Your task to perform on an android device: Go to Reddit.com Image 0: 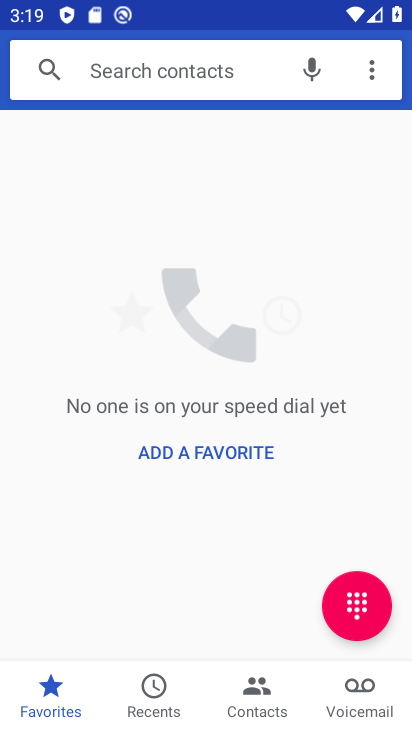
Step 0: press home button
Your task to perform on an android device: Go to Reddit.com Image 1: 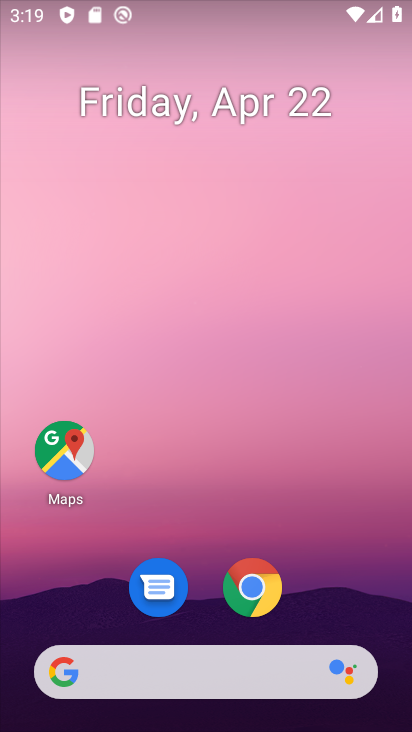
Step 1: click (251, 587)
Your task to perform on an android device: Go to Reddit.com Image 2: 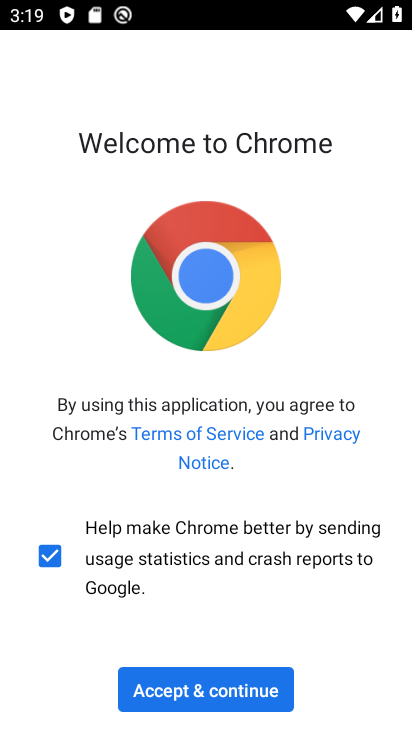
Step 2: click (196, 688)
Your task to perform on an android device: Go to Reddit.com Image 3: 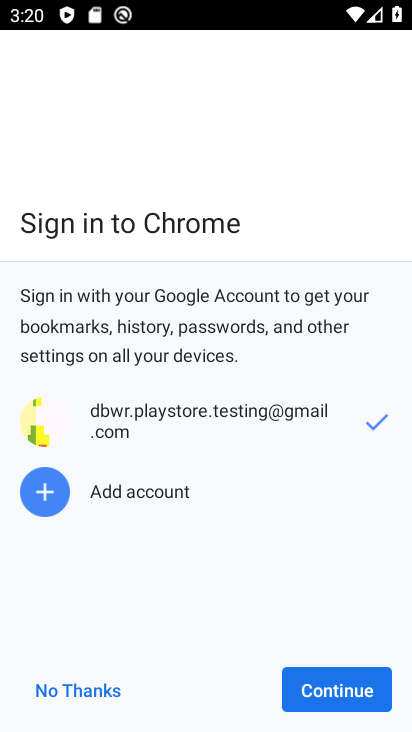
Step 3: click (337, 691)
Your task to perform on an android device: Go to Reddit.com Image 4: 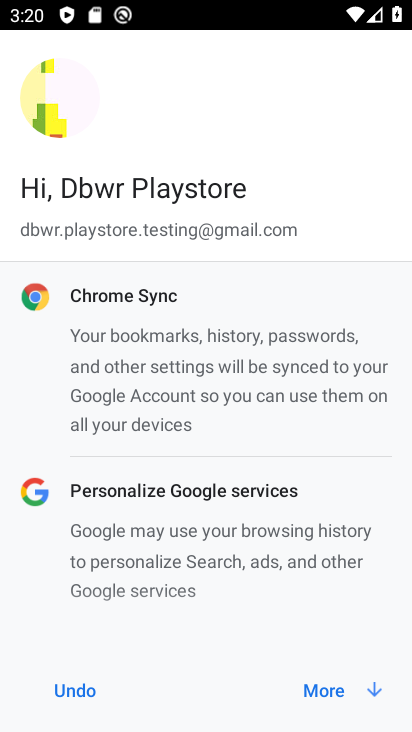
Step 4: click (337, 691)
Your task to perform on an android device: Go to Reddit.com Image 5: 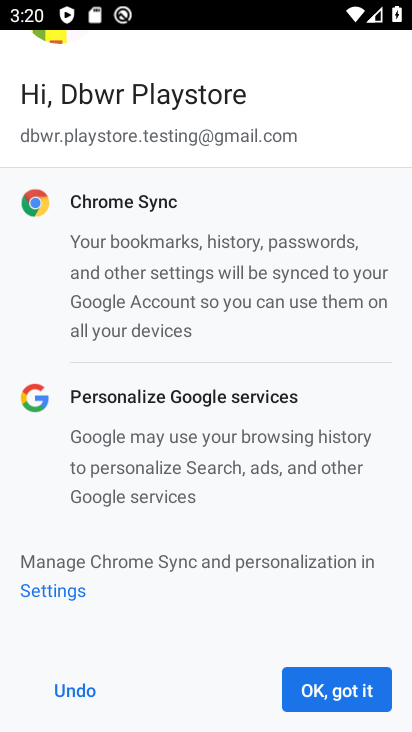
Step 5: click (337, 691)
Your task to perform on an android device: Go to Reddit.com Image 6: 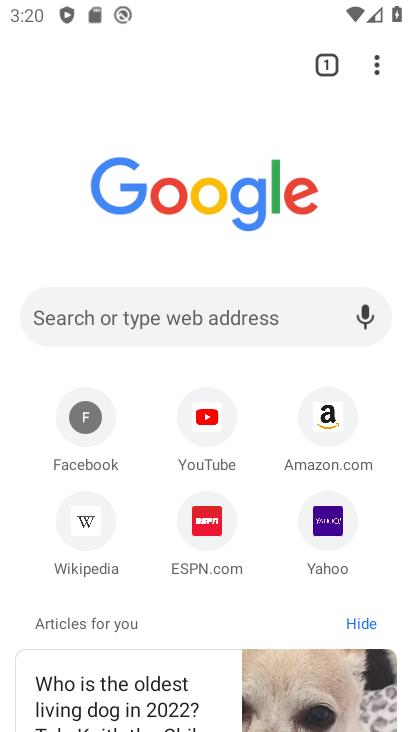
Step 6: click (203, 307)
Your task to perform on an android device: Go to Reddit.com Image 7: 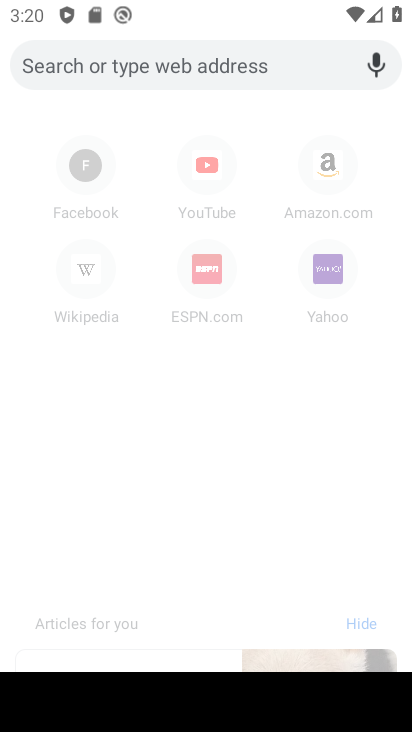
Step 7: type "Reddit.com"
Your task to perform on an android device: Go to Reddit.com Image 8: 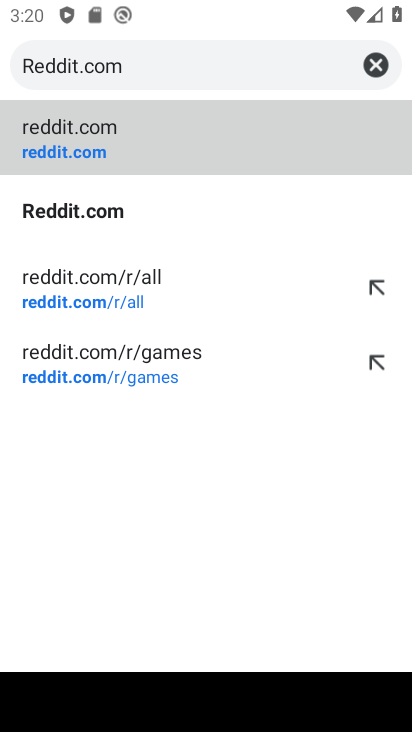
Step 8: click (99, 213)
Your task to perform on an android device: Go to Reddit.com Image 9: 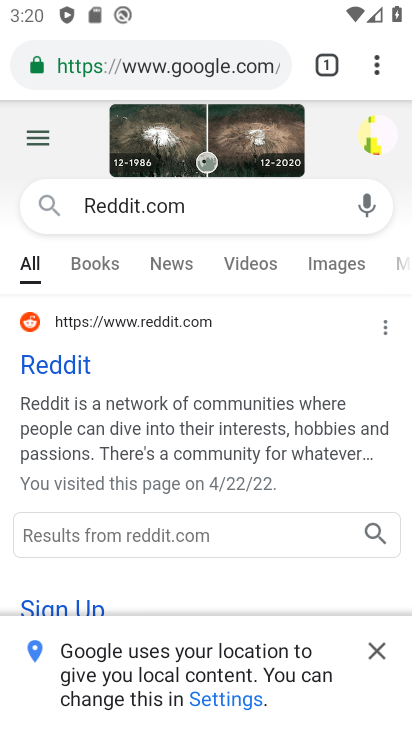
Step 9: task complete